Your task to perform on an android device: Go to Google maps Image 0: 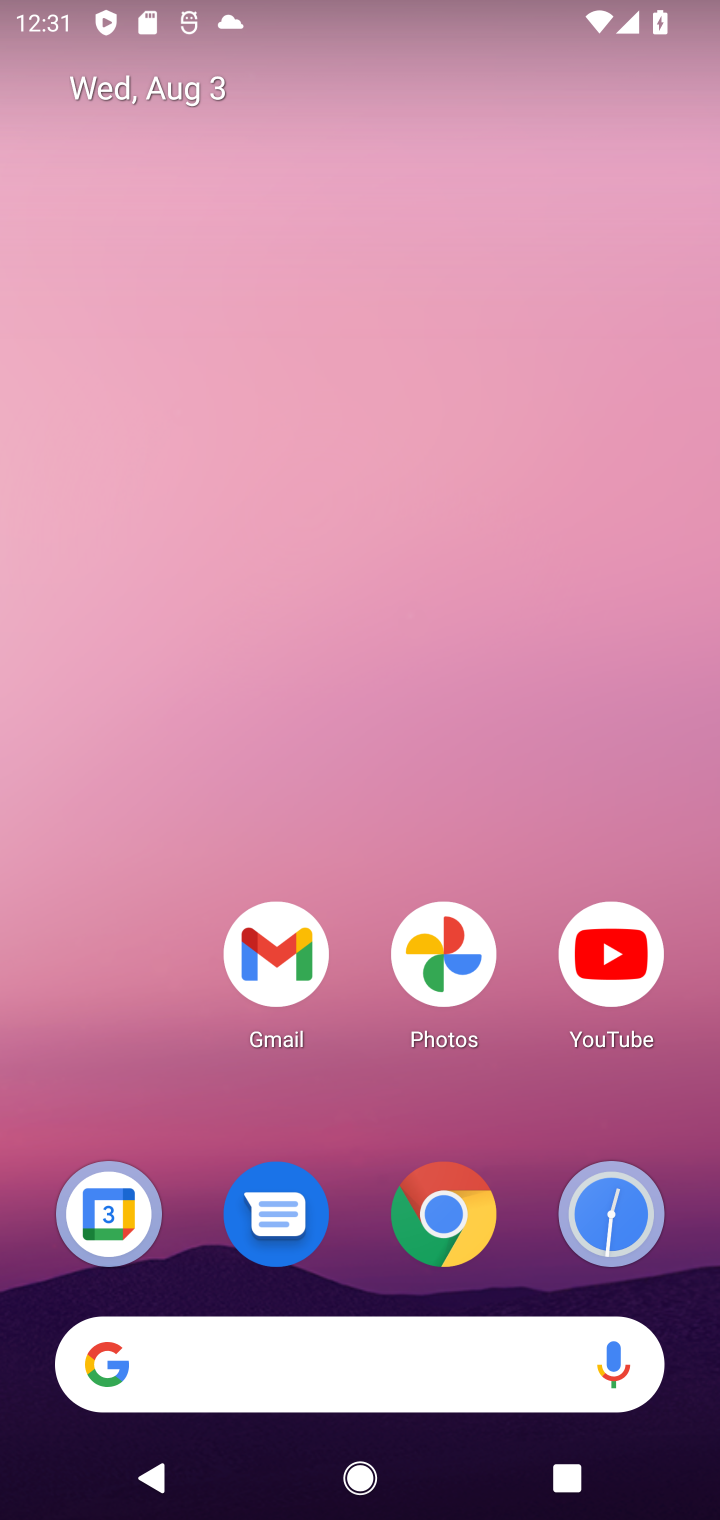
Step 0: drag from (427, 1485) to (689, 1195)
Your task to perform on an android device: Go to Google maps Image 1: 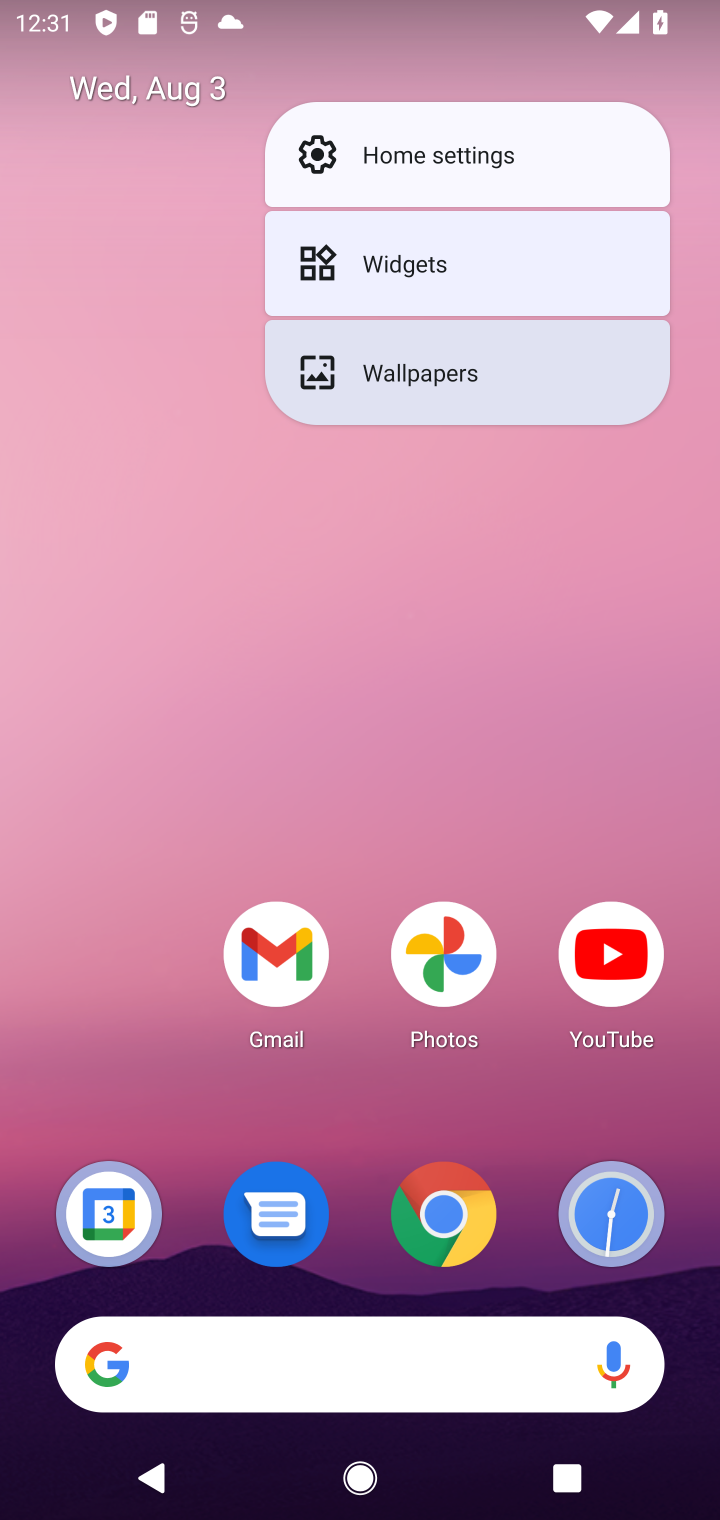
Step 1: drag from (515, 1138) to (584, 97)
Your task to perform on an android device: Go to Google maps Image 2: 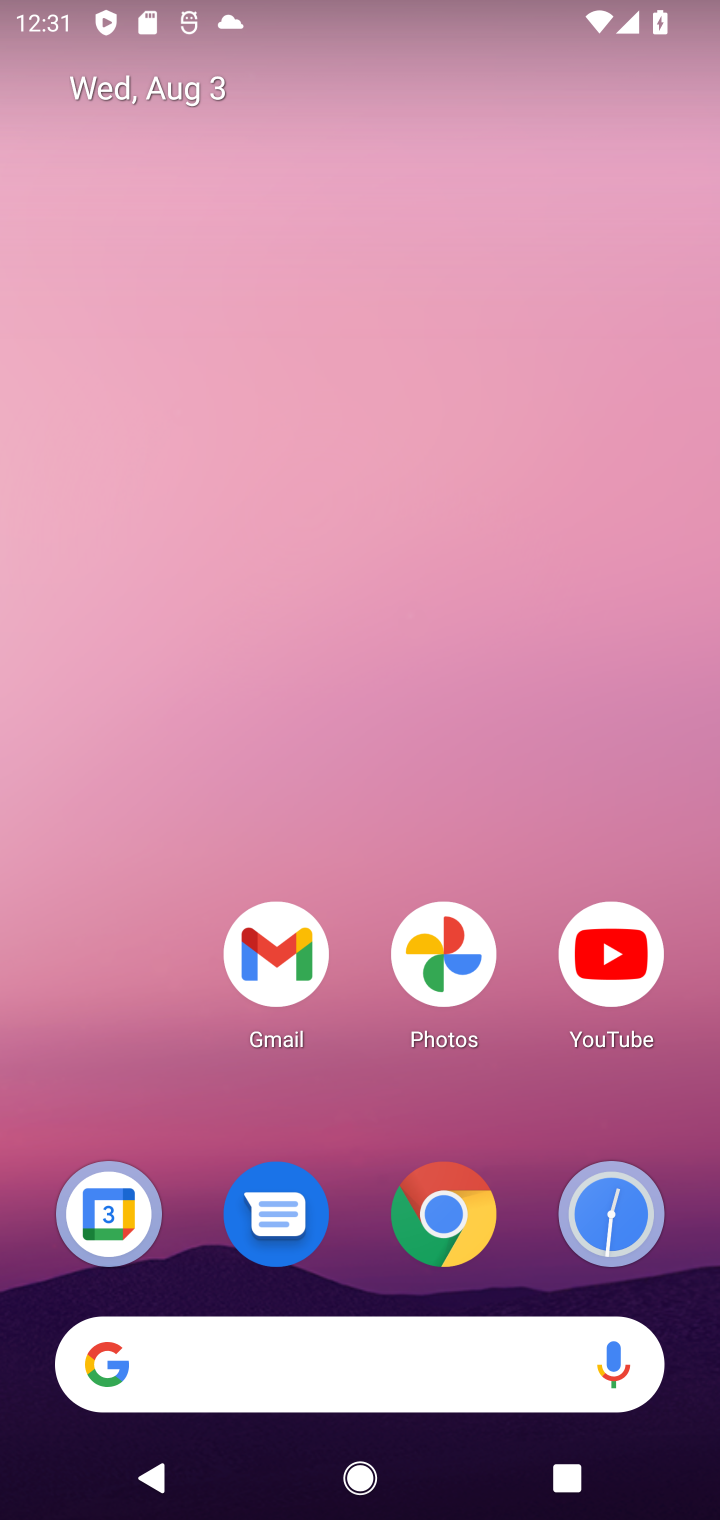
Step 2: drag from (471, 1201) to (453, 95)
Your task to perform on an android device: Go to Google maps Image 3: 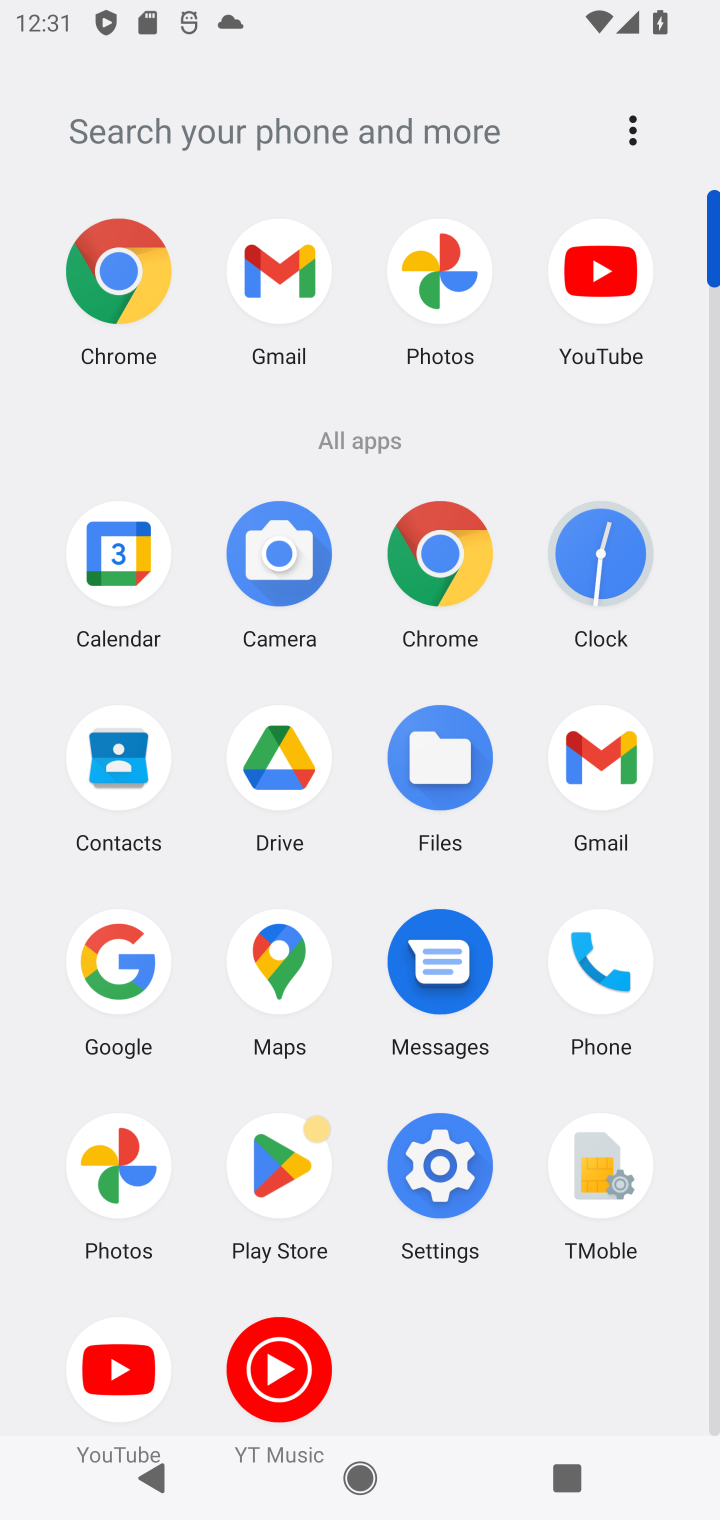
Step 3: click (265, 970)
Your task to perform on an android device: Go to Google maps Image 4: 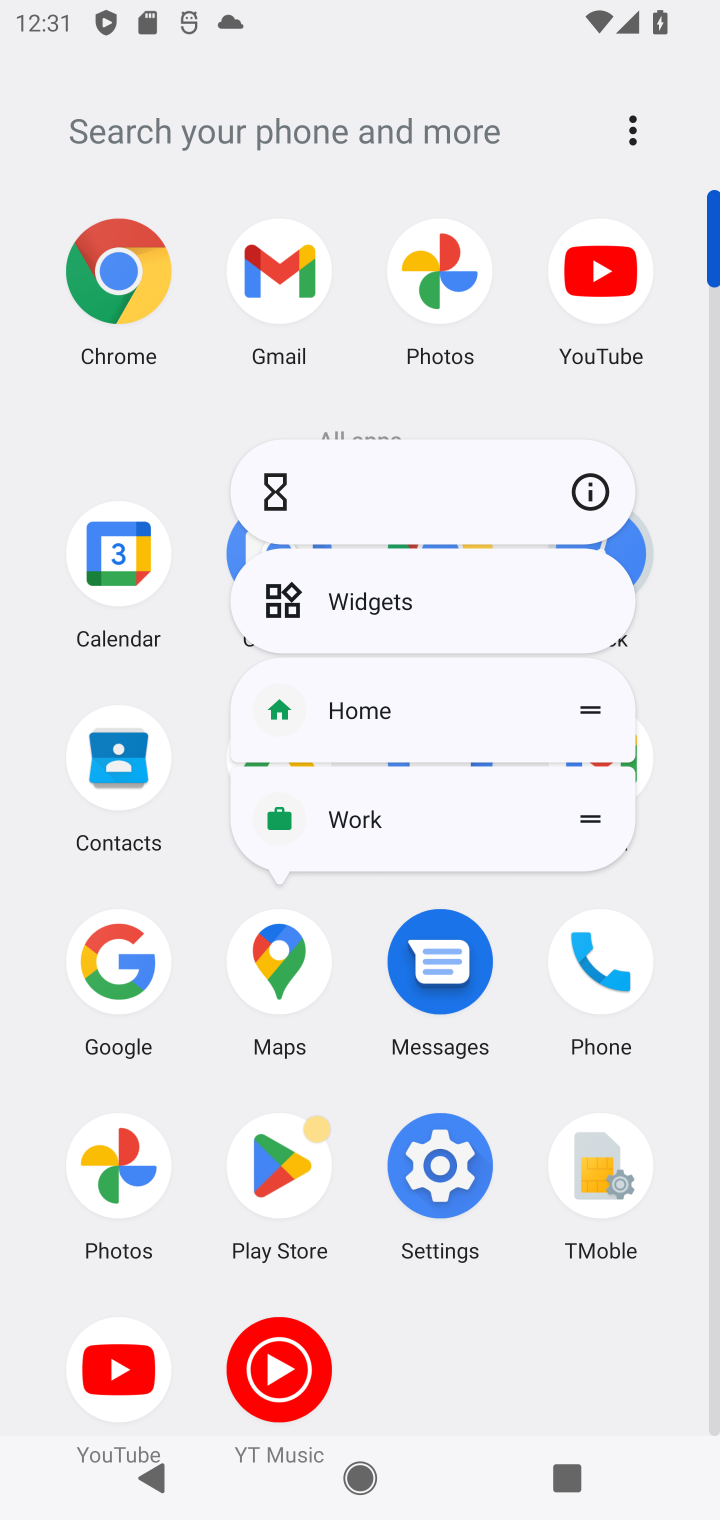
Step 4: click (265, 970)
Your task to perform on an android device: Go to Google maps Image 5: 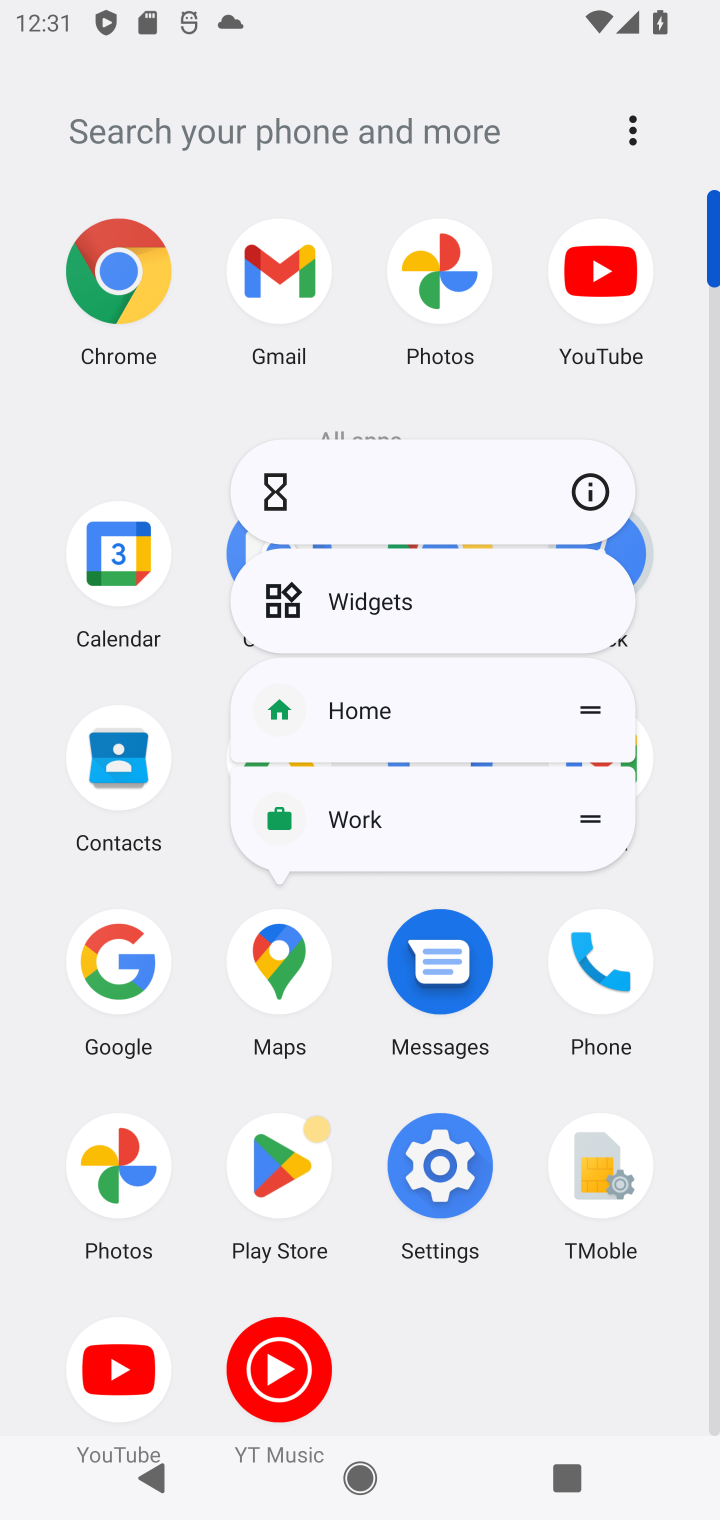
Step 5: click (282, 1042)
Your task to perform on an android device: Go to Google maps Image 6: 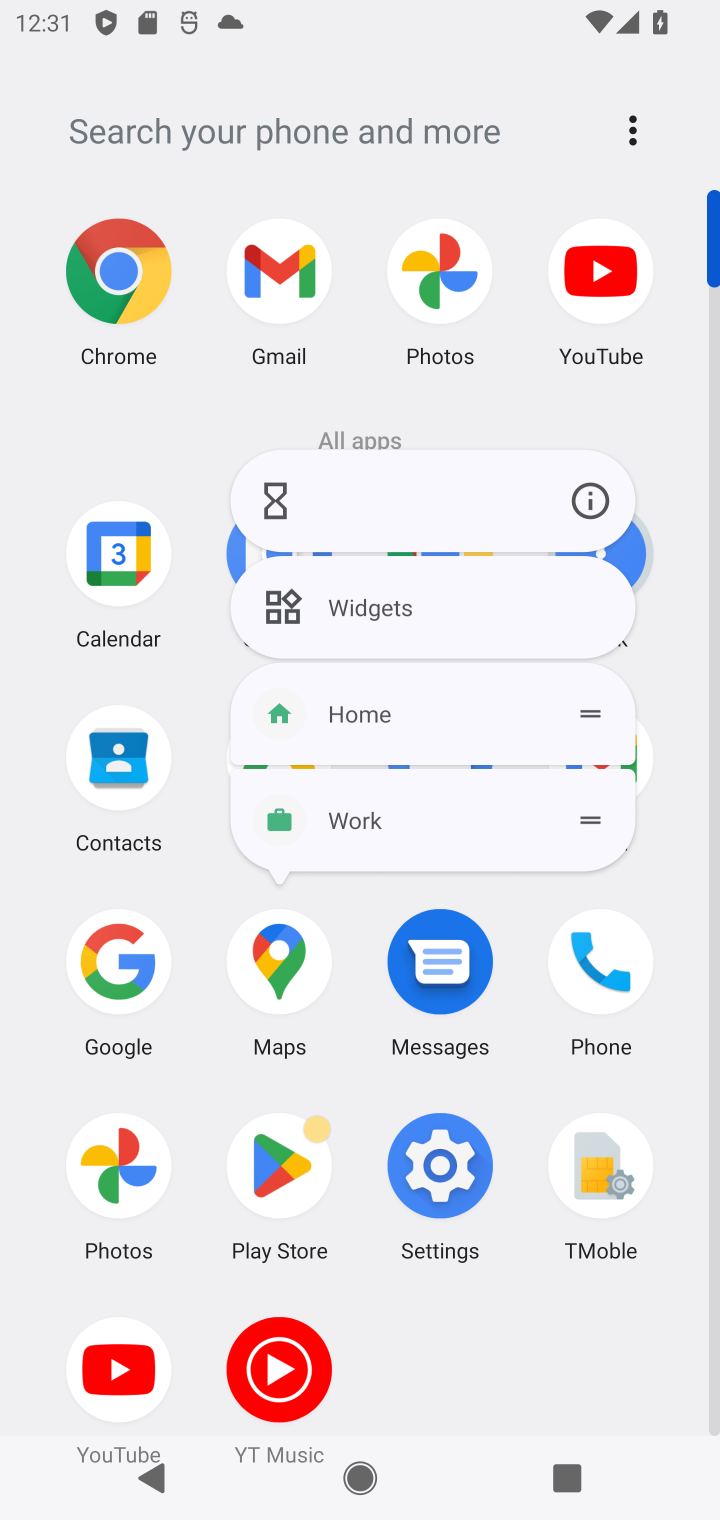
Step 6: click (282, 1042)
Your task to perform on an android device: Go to Google maps Image 7: 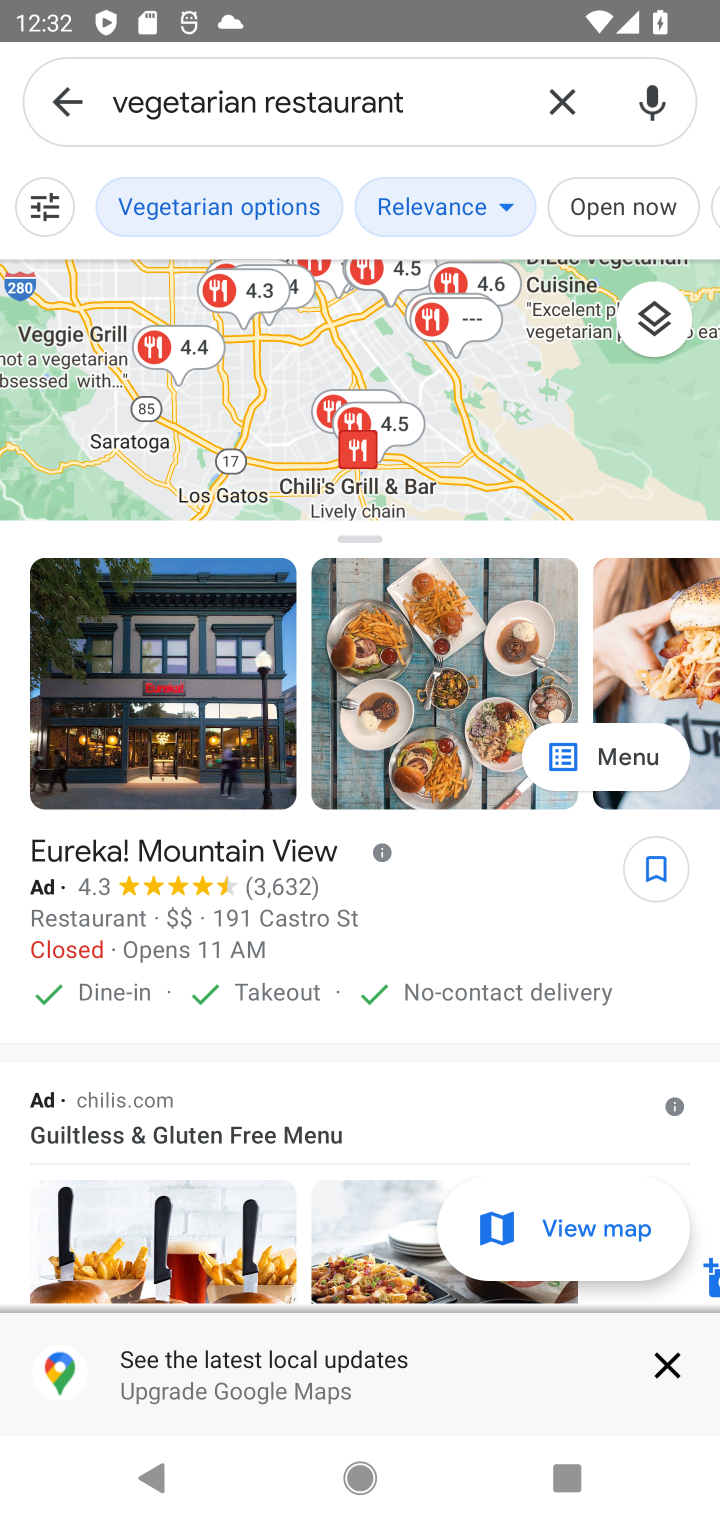
Step 7: task complete